Your task to perform on an android device: Go to eBay Image 0: 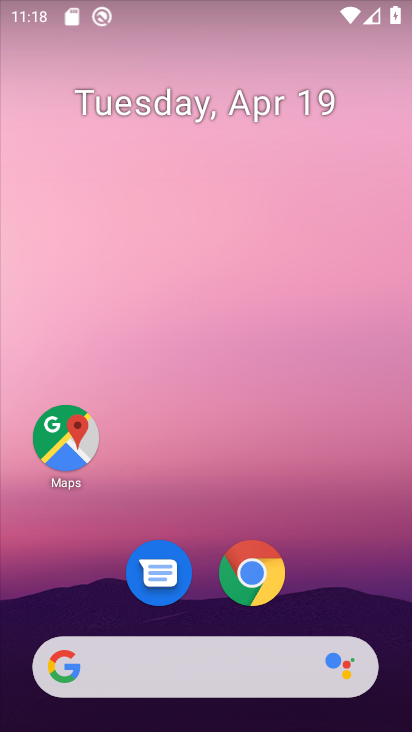
Step 0: click (274, 583)
Your task to perform on an android device: Go to eBay Image 1: 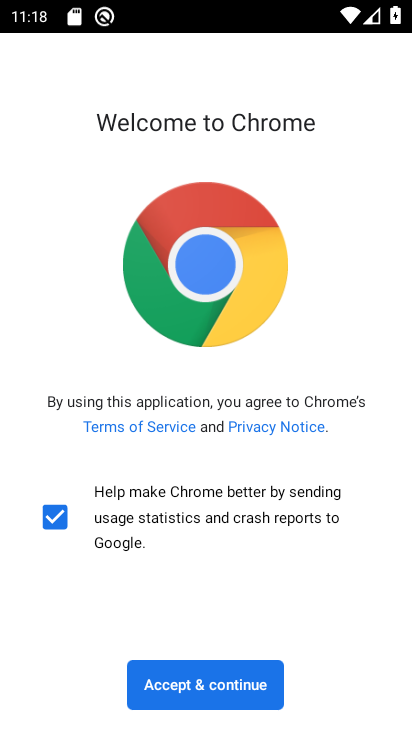
Step 1: click (245, 689)
Your task to perform on an android device: Go to eBay Image 2: 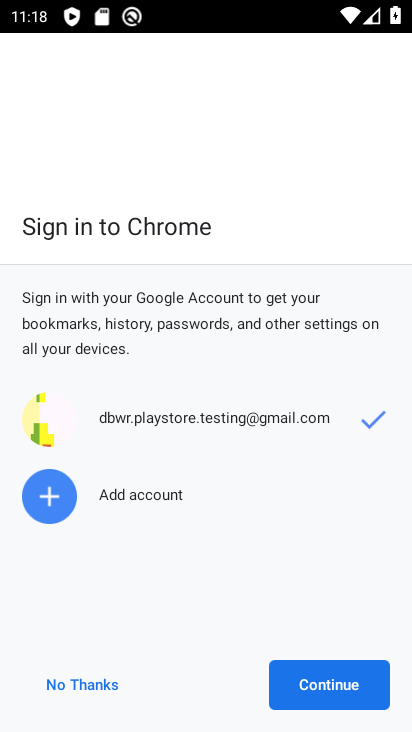
Step 2: click (326, 698)
Your task to perform on an android device: Go to eBay Image 3: 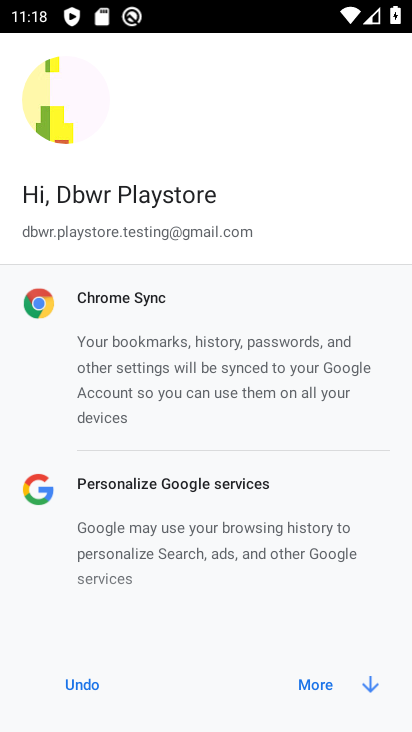
Step 3: click (324, 685)
Your task to perform on an android device: Go to eBay Image 4: 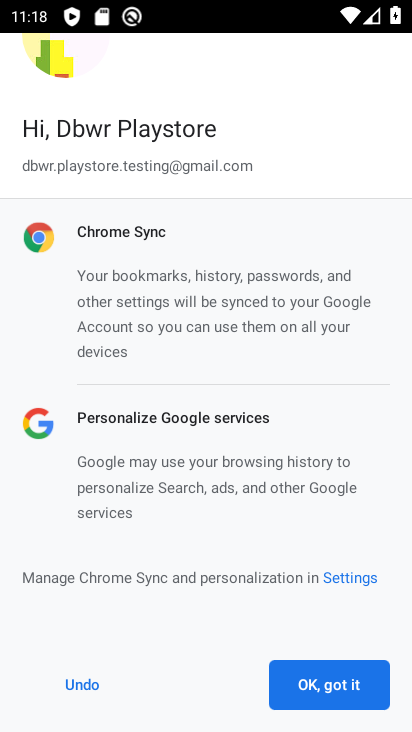
Step 4: click (324, 686)
Your task to perform on an android device: Go to eBay Image 5: 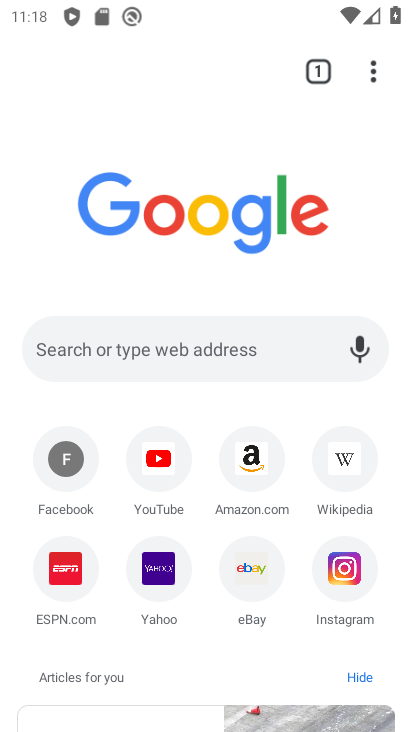
Step 5: click (189, 350)
Your task to perform on an android device: Go to eBay Image 6: 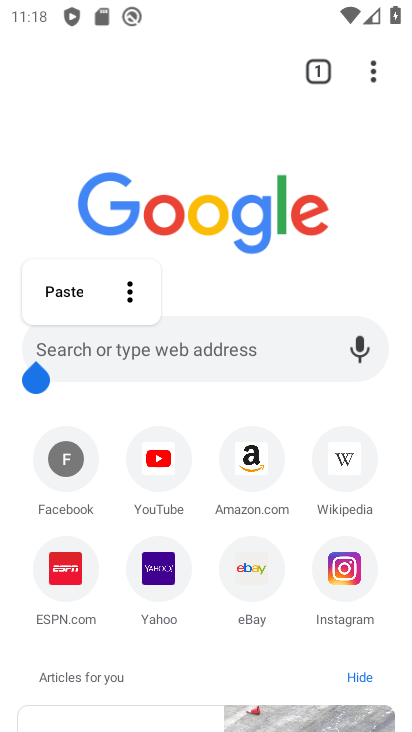
Step 6: click (286, 289)
Your task to perform on an android device: Go to eBay Image 7: 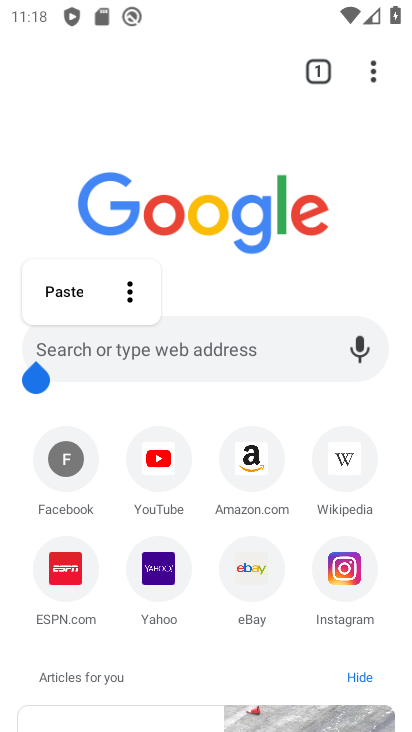
Step 7: click (256, 345)
Your task to perform on an android device: Go to eBay Image 8: 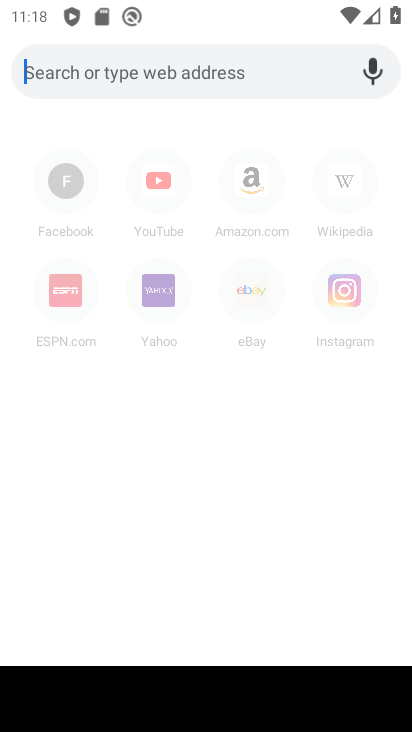
Step 8: type "ebay"
Your task to perform on an android device: Go to eBay Image 9: 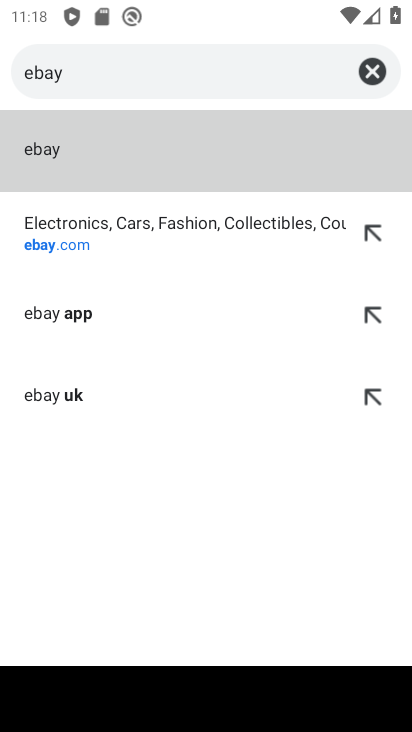
Step 9: click (97, 240)
Your task to perform on an android device: Go to eBay Image 10: 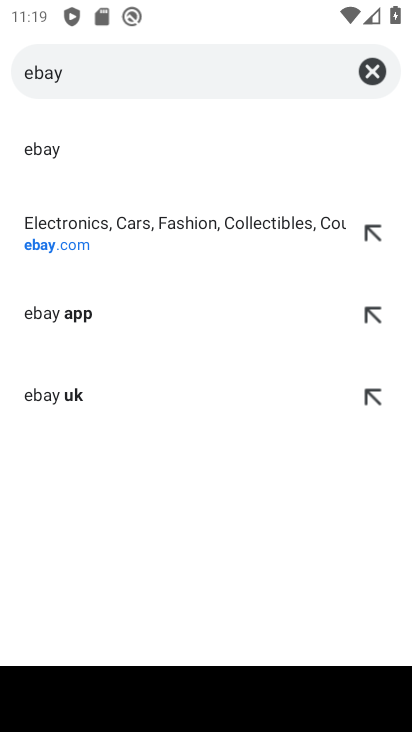
Step 10: click (88, 242)
Your task to perform on an android device: Go to eBay Image 11: 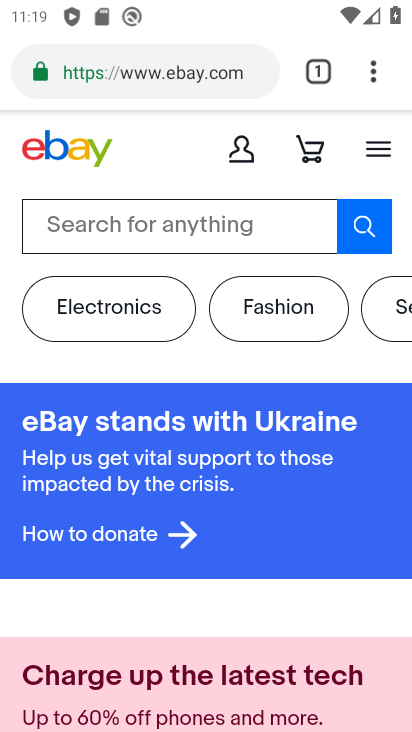
Step 11: task complete